Your task to perform on an android device: snooze an email in the gmail app Image 0: 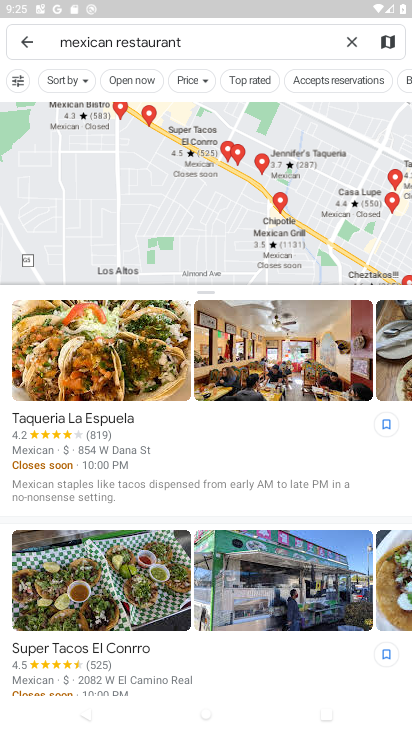
Step 0: press home button
Your task to perform on an android device: snooze an email in the gmail app Image 1: 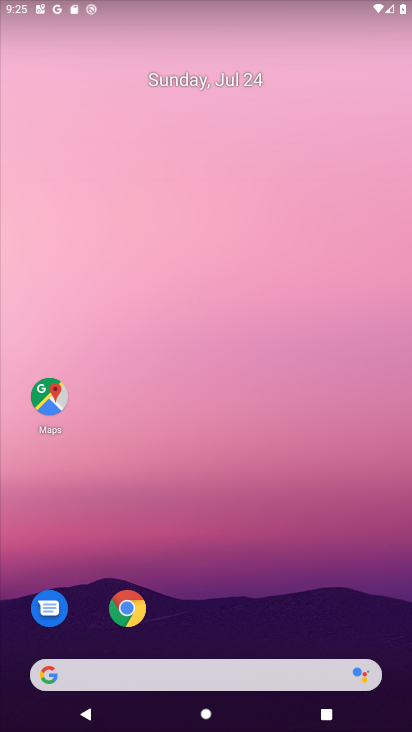
Step 1: drag from (171, 644) to (256, 72)
Your task to perform on an android device: snooze an email in the gmail app Image 2: 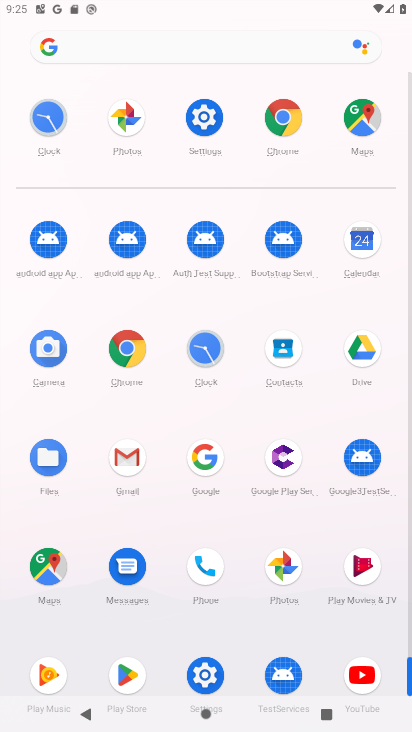
Step 2: click (130, 461)
Your task to perform on an android device: snooze an email in the gmail app Image 3: 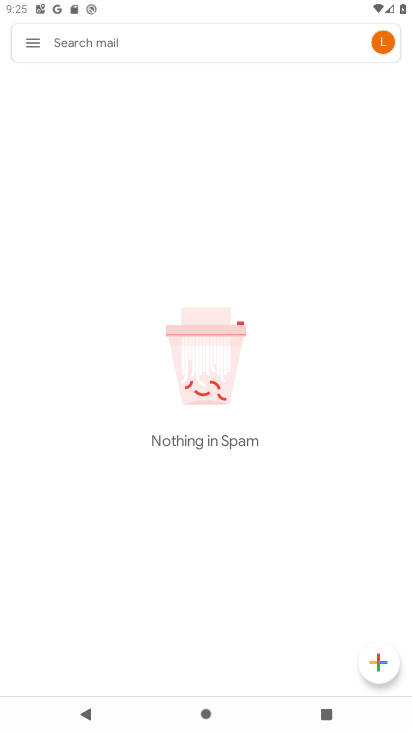
Step 3: click (39, 40)
Your task to perform on an android device: snooze an email in the gmail app Image 4: 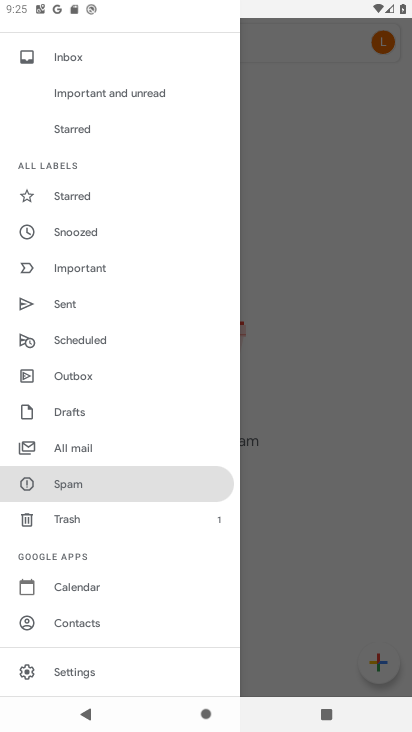
Step 4: click (54, 226)
Your task to perform on an android device: snooze an email in the gmail app Image 5: 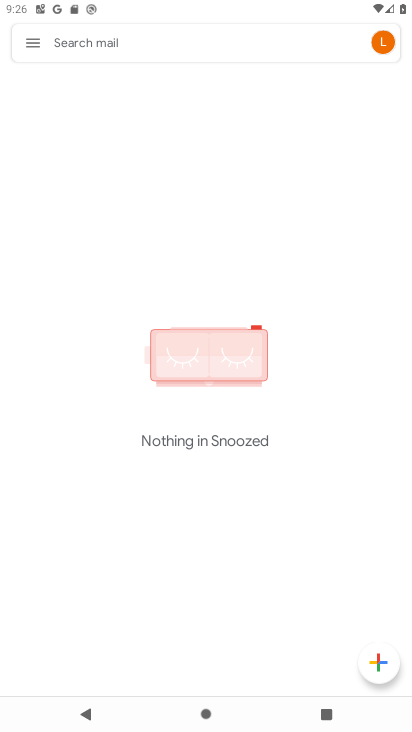
Step 5: task complete